Your task to perform on an android device: Open battery settings Image 0: 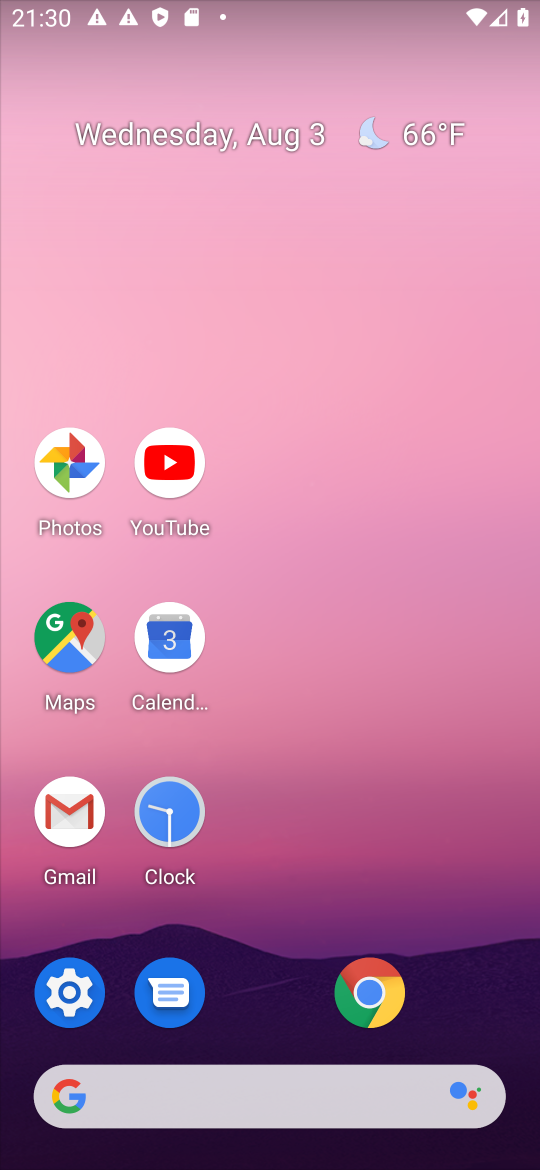
Step 0: click (66, 995)
Your task to perform on an android device: Open battery settings Image 1: 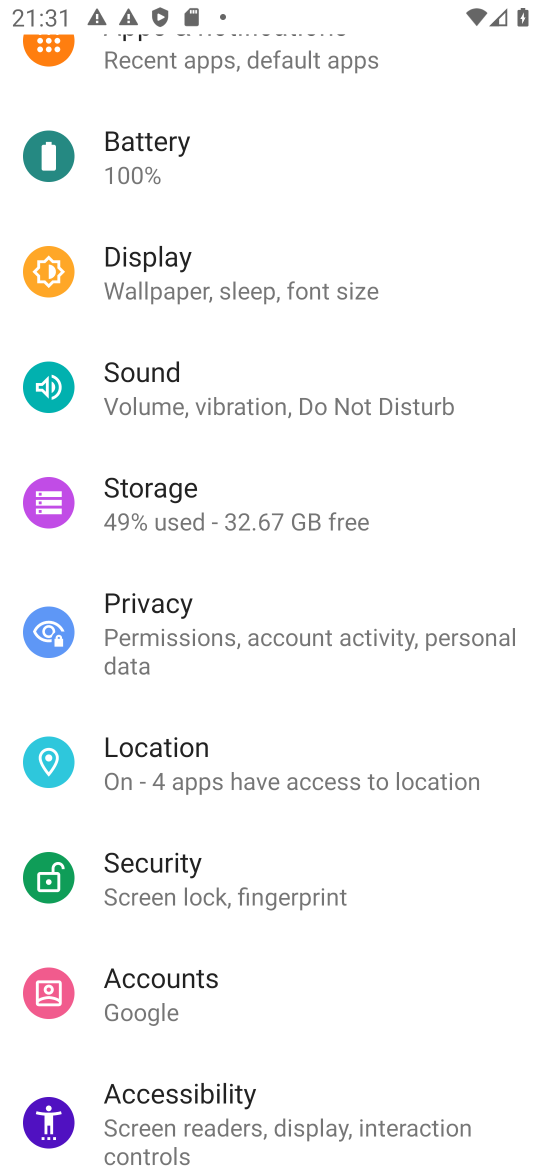
Step 1: click (143, 156)
Your task to perform on an android device: Open battery settings Image 2: 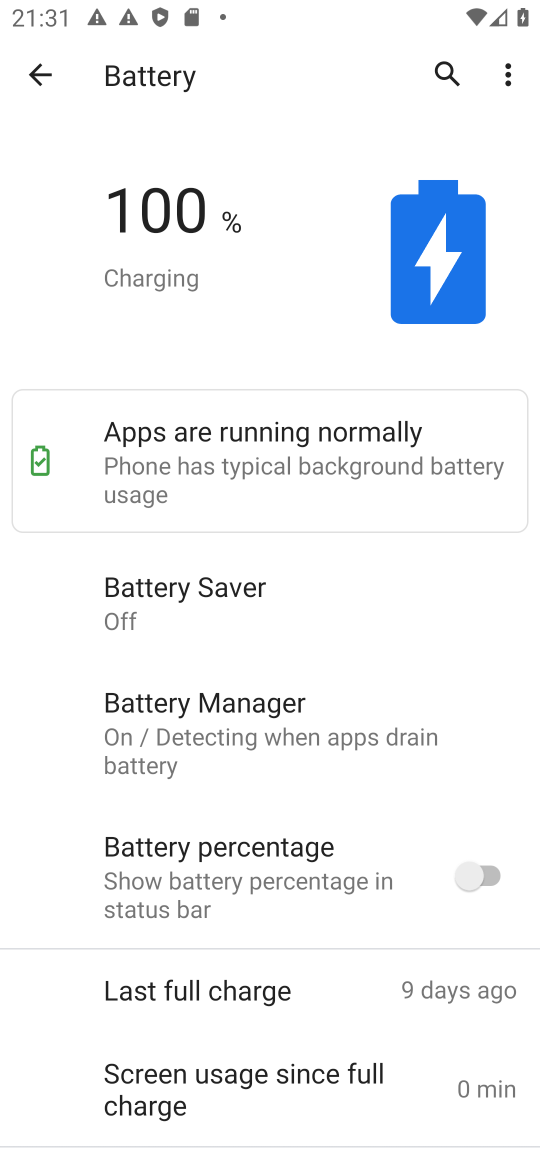
Step 2: task complete